Your task to perform on an android device: Open settings on Google Maps Image 0: 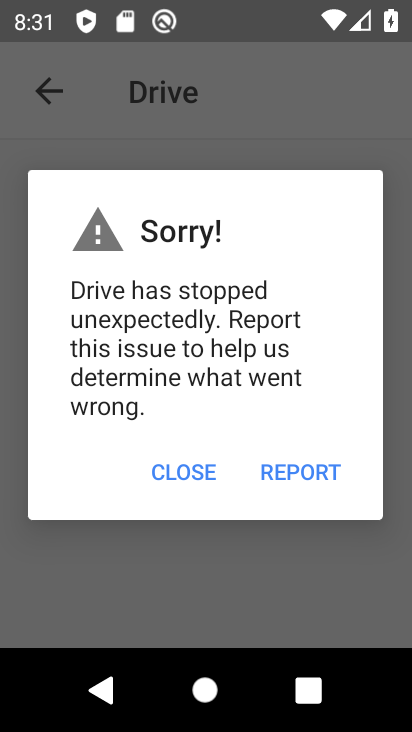
Step 0: press home button
Your task to perform on an android device: Open settings on Google Maps Image 1: 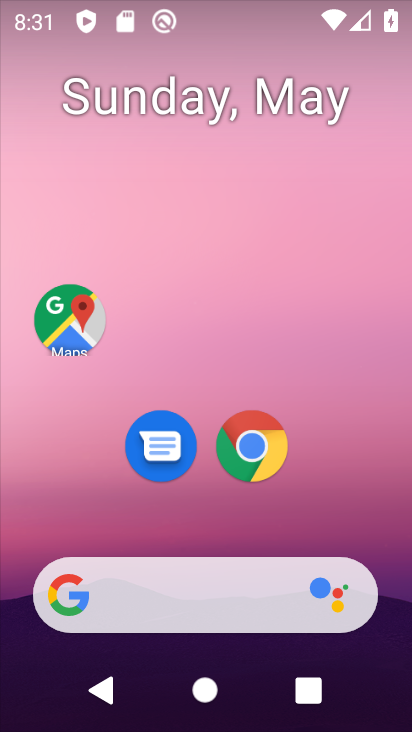
Step 1: click (56, 311)
Your task to perform on an android device: Open settings on Google Maps Image 2: 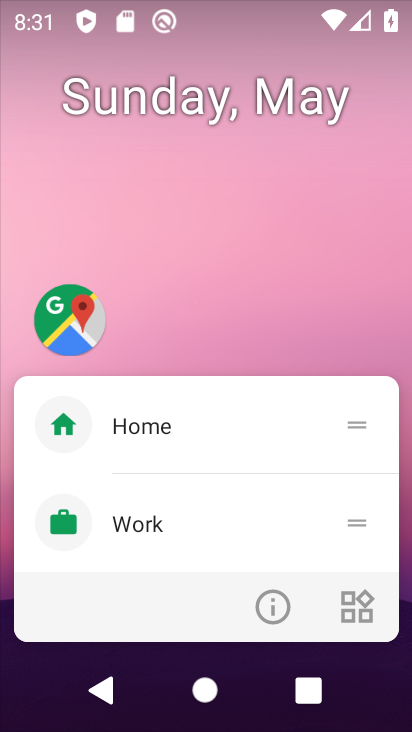
Step 2: click (74, 327)
Your task to perform on an android device: Open settings on Google Maps Image 3: 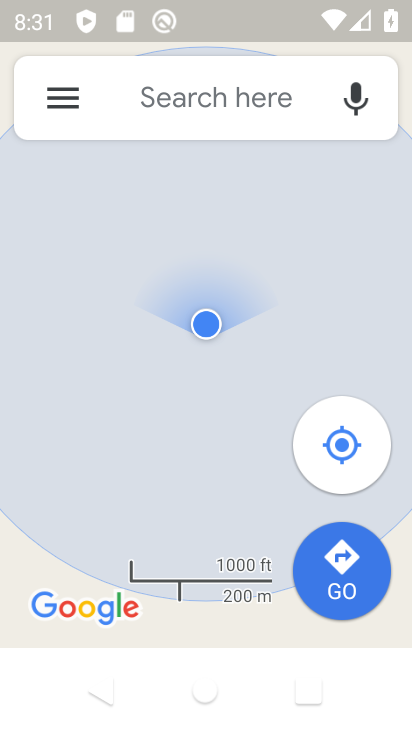
Step 3: click (71, 121)
Your task to perform on an android device: Open settings on Google Maps Image 4: 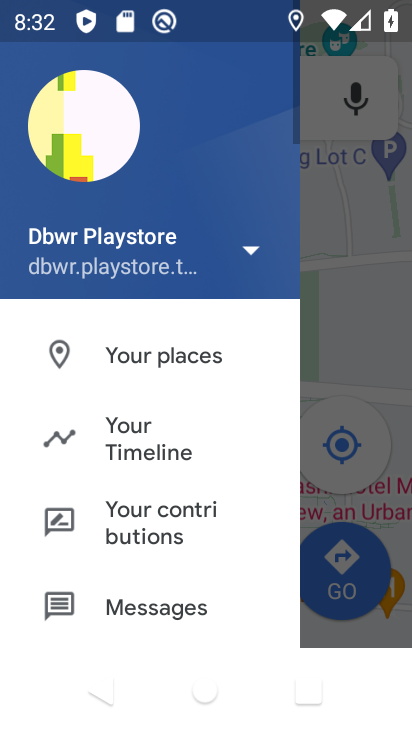
Step 4: drag from (44, 594) to (235, 268)
Your task to perform on an android device: Open settings on Google Maps Image 5: 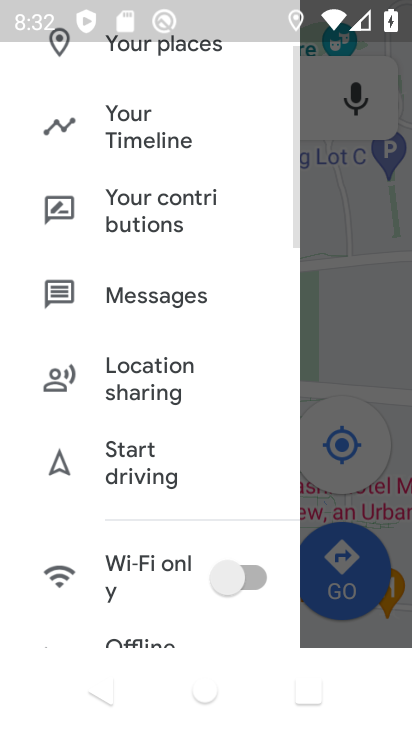
Step 5: drag from (192, 271) to (270, 107)
Your task to perform on an android device: Open settings on Google Maps Image 6: 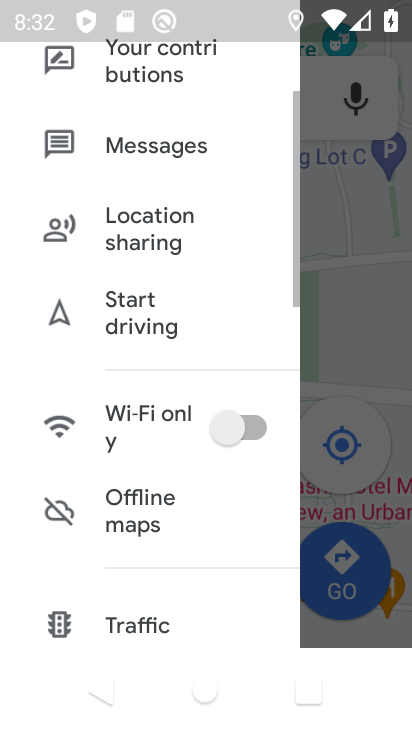
Step 6: drag from (121, 509) to (254, 125)
Your task to perform on an android device: Open settings on Google Maps Image 7: 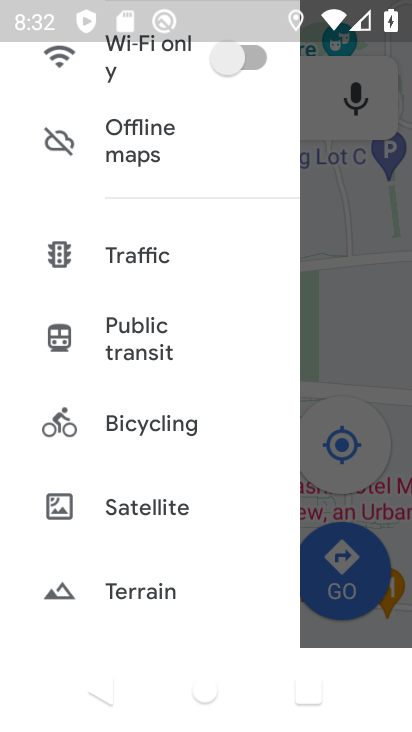
Step 7: drag from (98, 563) to (239, 81)
Your task to perform on an android device: Open settings on Google Maps Image 8: 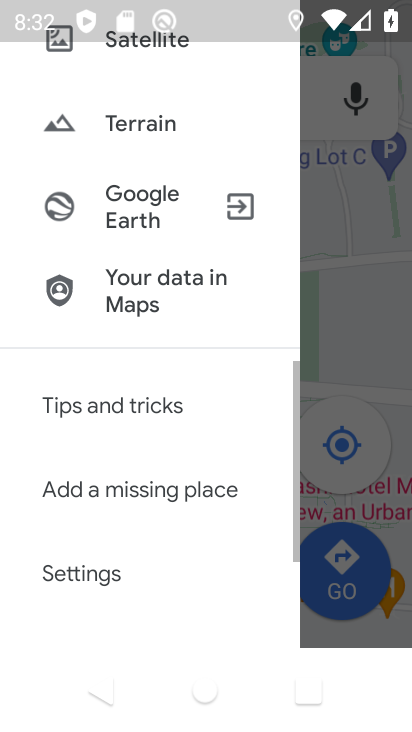
Step 8: drag from (94, 527) to (167, 294)
Your task to perform on an android device: Open settings on Google Maps Image 9: 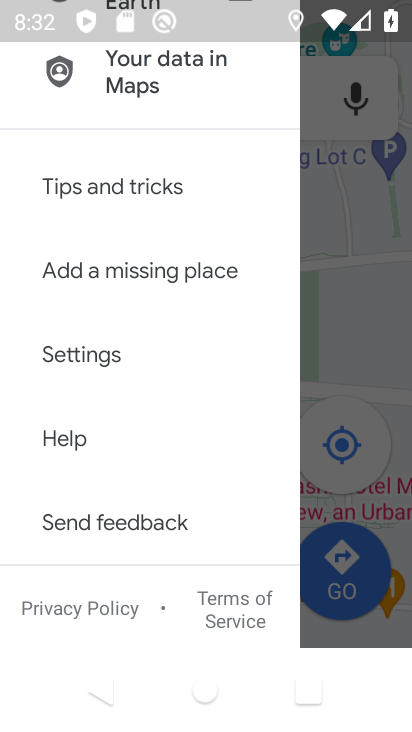
Step 9: click (112, 358)
Your task to perform on an android device: Open settings on Google Maps Image 10: 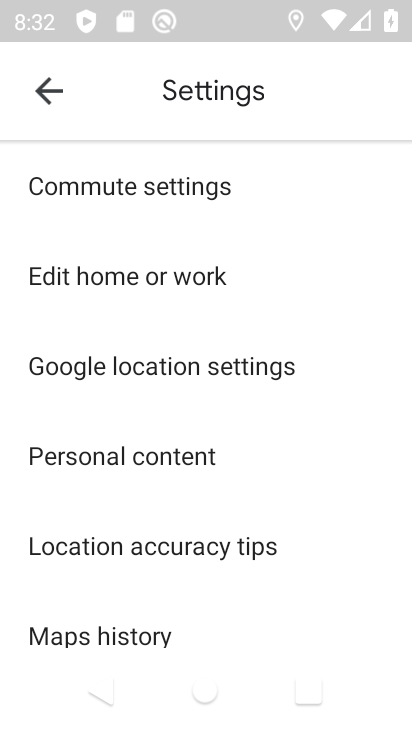
Step 10: task complete